Your task to perform on an android device: visit the assistant section in the google photos Image 0: 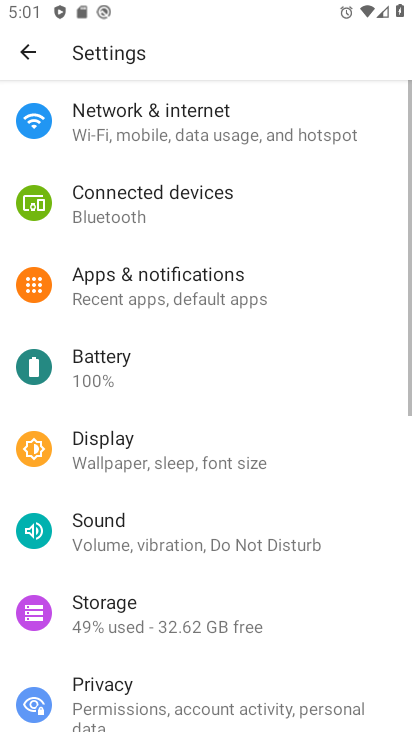
Step 0: press home button
Your task to perform on an android device: visit the assistant section in the google photos Image 1: 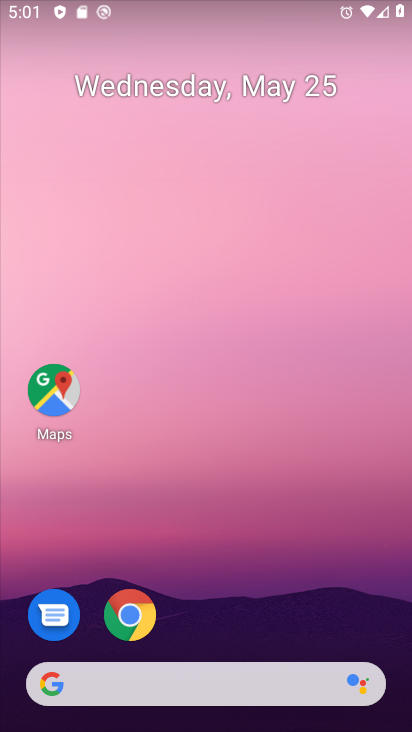
Step 1: drag from (330, 608) to (313, 0)
Your task to perform on an android device: visit the assistant section in the google photos Image 2: 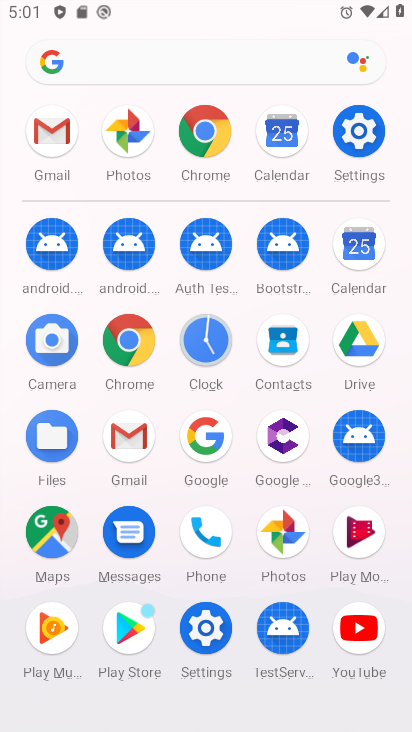
Step 2: click (135, 150)
Your task to perform on an android device: visit the assistant section in the google photos Image 3: 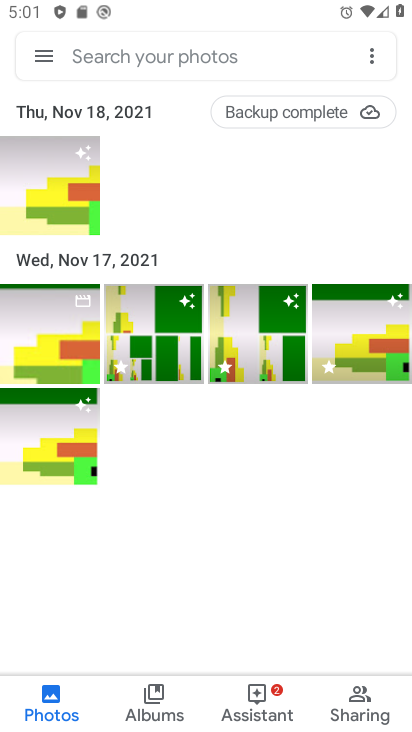
Step 3: click (246, 720)
Your task to perform on an android device: visit the assistant section in the google photos Image 4: 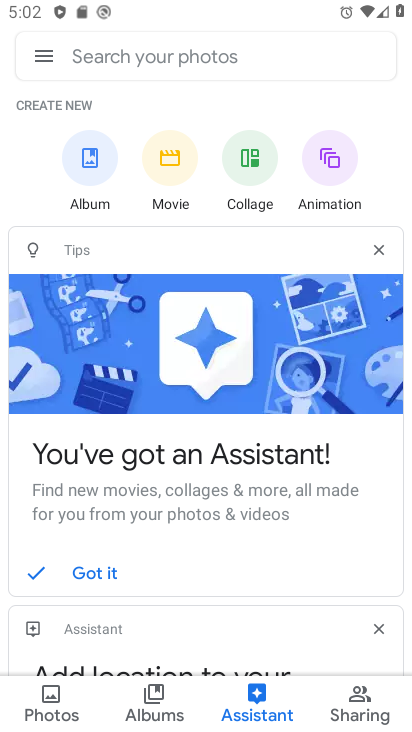
Step 4: task complete